Your task to perform on an android device: toggle location history Image 0: 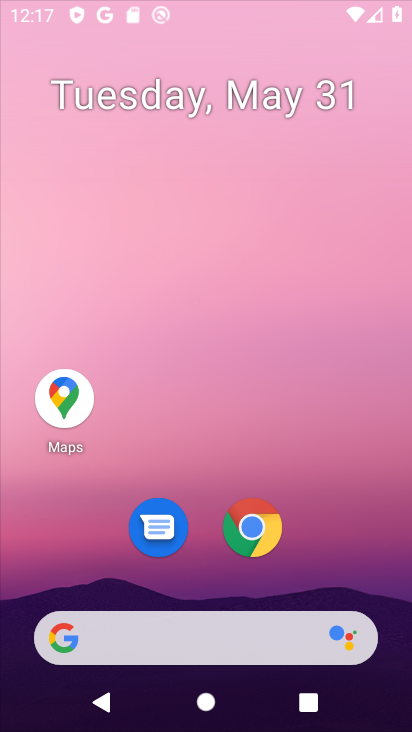
Step 0: click (89, 115)
Your task to perform on an android device: toggle location history Image 1: 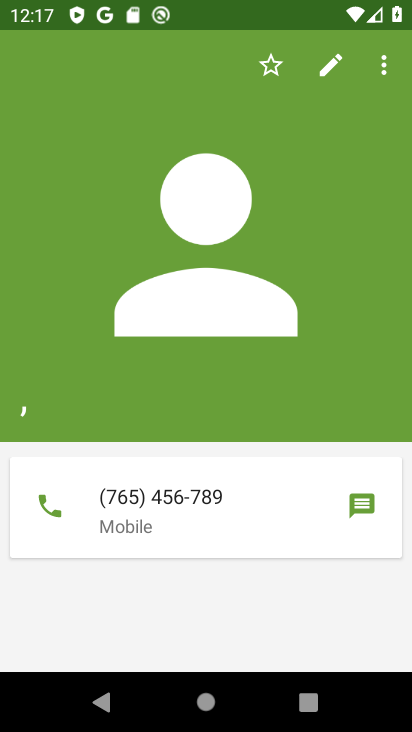
Step 1: press back button
Your task to perform on an android device: toggle location history Image 2: 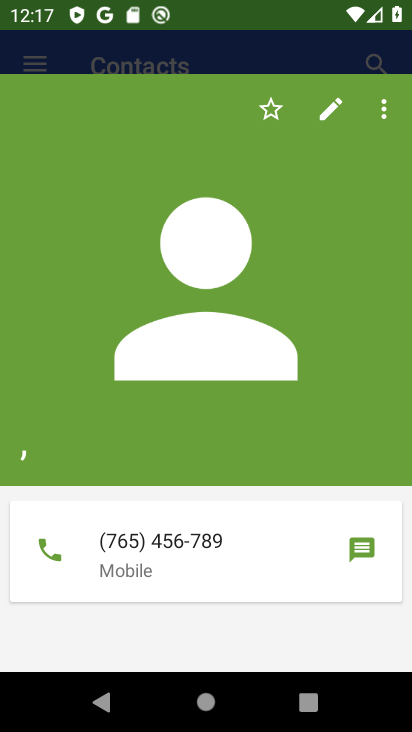
Step 2: press back button
Your task to perform on an android device: toggle location history Image 3: 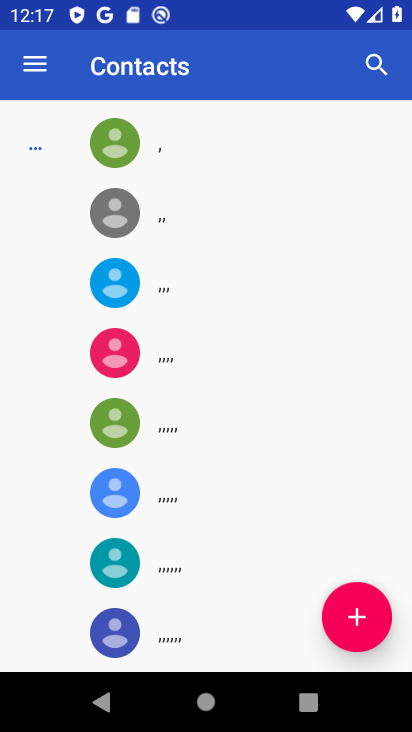
Step 3: press back button
Your task to perform on an android device: toggle location history Image 4: 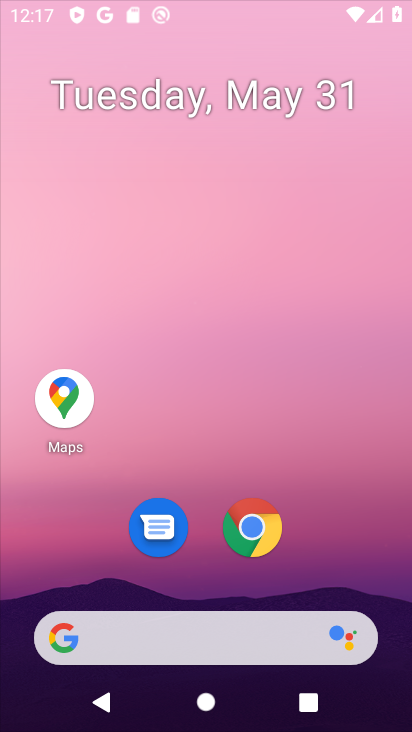
Step 4: press back button
Your task to perform on an android device: toggle location history Image 5: 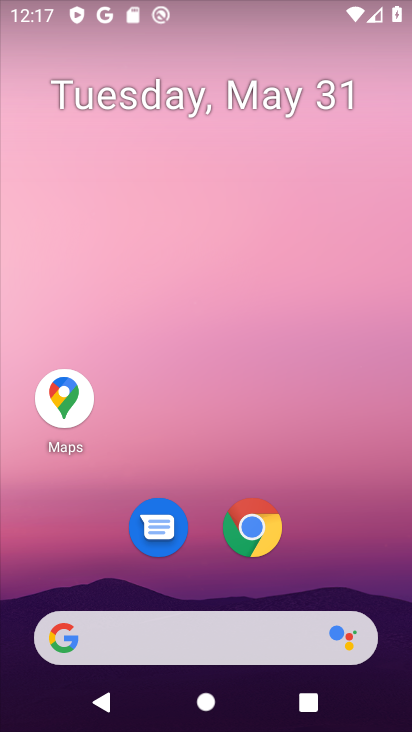
Step 5: drag from (243, 658) to (58, 138)
Your task to perform on an android device: toggle location history Image 6: 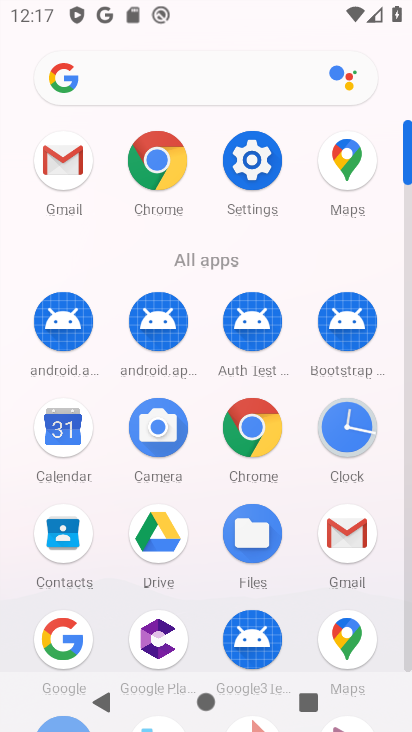
Step 6: drag from (227, 530) to (166, 194)
Your task to perform on an android device: toggle location history Image 7: 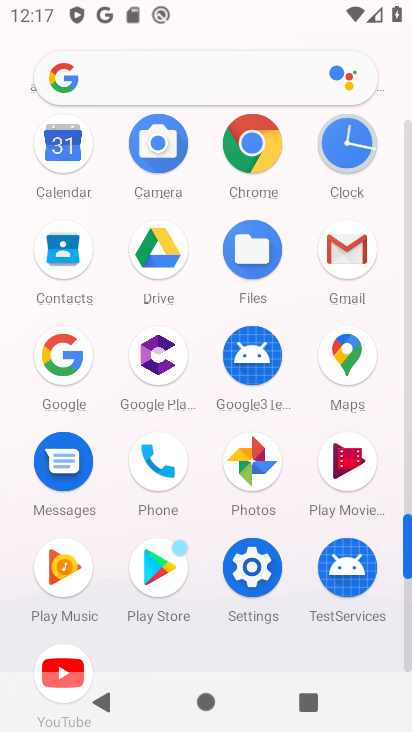
Step 7: drag from (187, 345) to (196, 590)
Your task to perform on an android device: toggle location history Image 8: 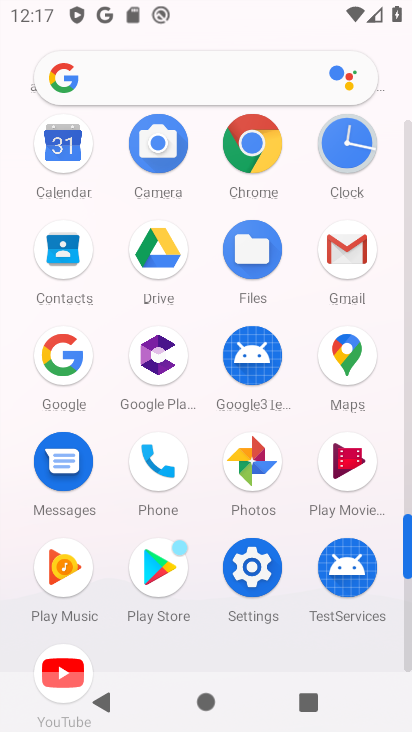
Step 8: drag from (200, 250) to (223, 573)
Your task to perform on an android device: toggle location history Image 9: 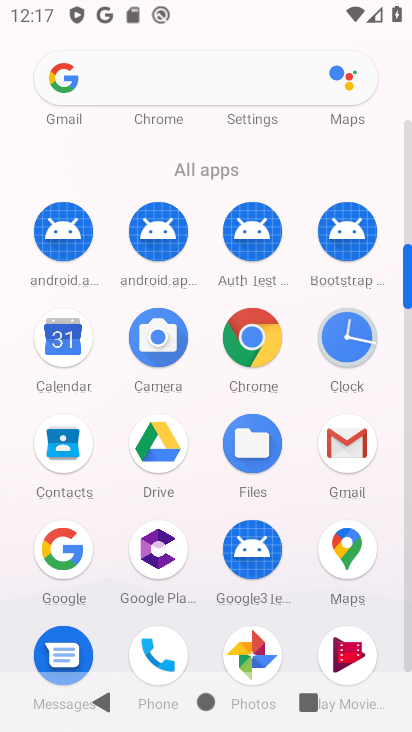
Step 9: drag from (194, 234) to (215, 601)
Your task to perform on an android device: toggle location history Image 10: 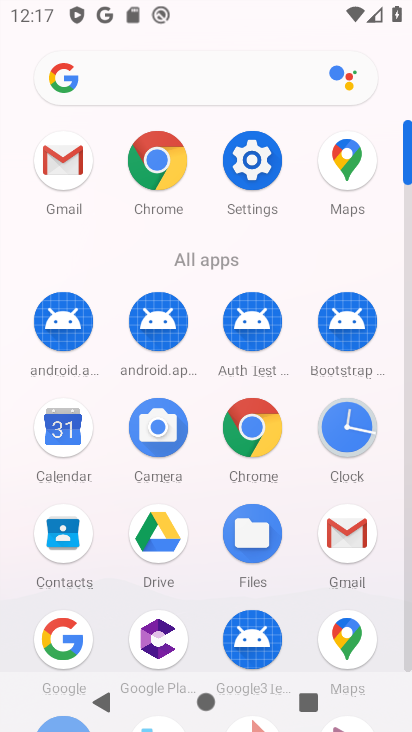
Step 10: click (226, 589)
Your task to perform on an android device: toggle location history Image 11: 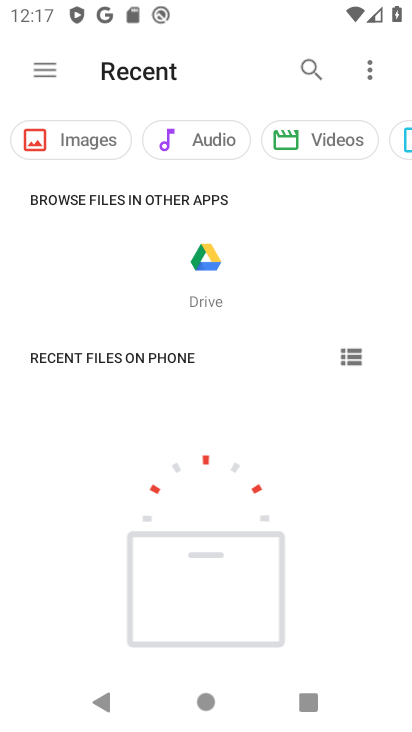
Step 11: press back button
Your task to perform on an android device: toggle location history Image 12: 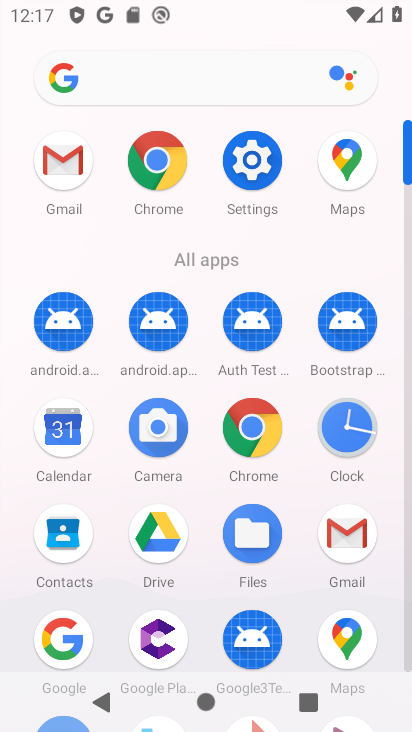
Step 12: drag from (187, 439) to (184, 201)
Your task to perform on an android device: toggle location history Image 13: 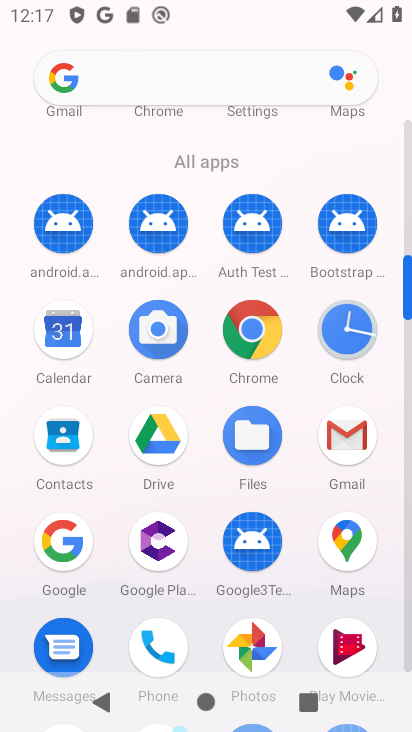
Step 13: drag from (208, 463) to (189, 237)
Your task to perform on an android device: toggle location history Image 14: 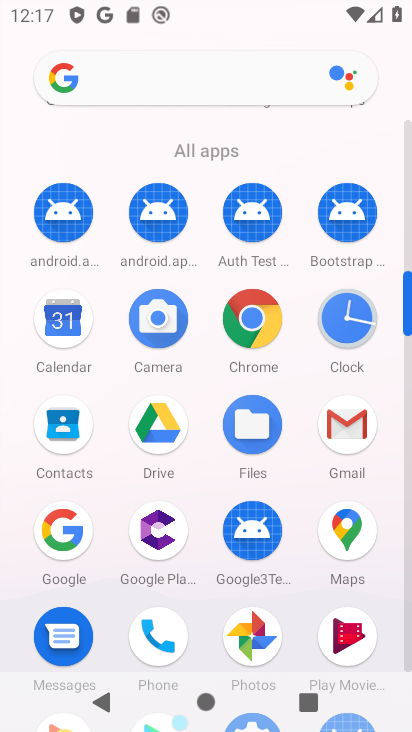
Step 14: drag from (203, 505) to (183, 238)
Your task to perform on an android device: toggle location history Image 15: 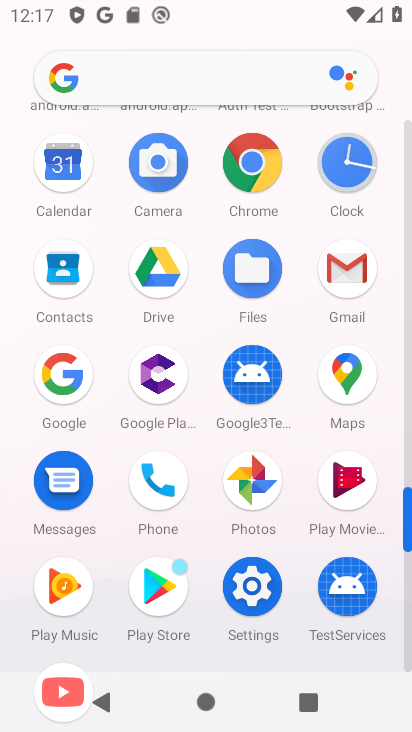
Step 15: drag from (213, 527) to (210, 263)
Your task to perform on an android device: toggle location history Image 16: 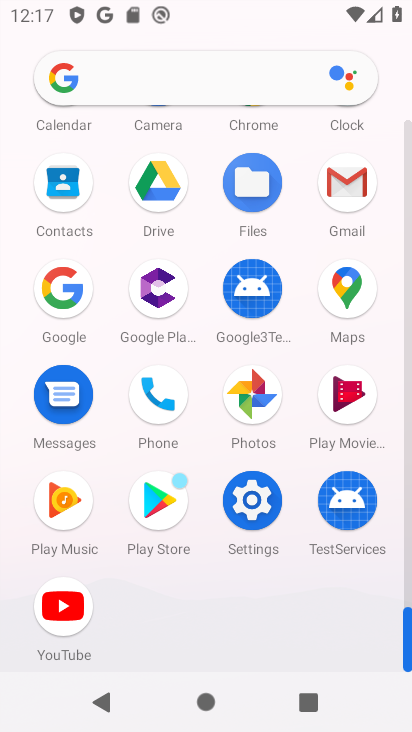
Step 16: click (249, 503)
Your task to perform on an android device: toggle location history Image 17: 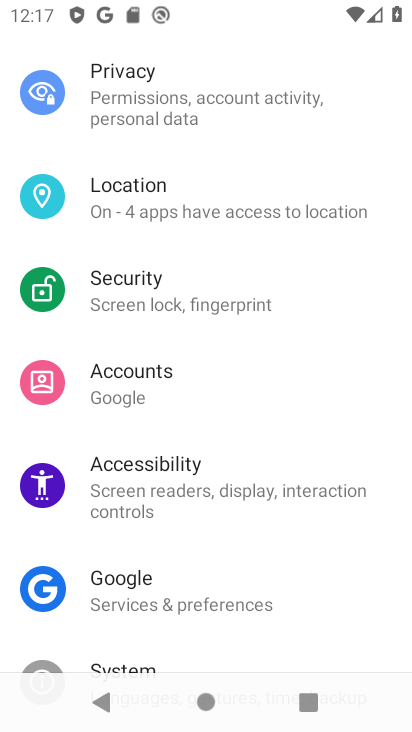
Step 17: click (144, 201)
Your task to perform on an android device: toggle location history Image 18: 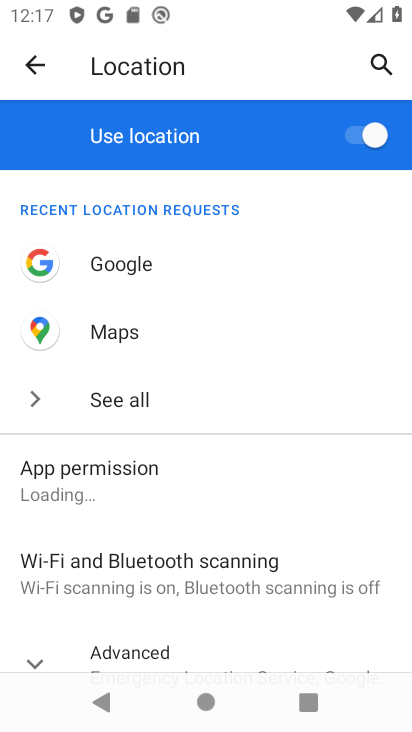
Step 18: drag from (194, 542) to (197, 156)
Your task to perform on an android device: toggle location history Image 19: 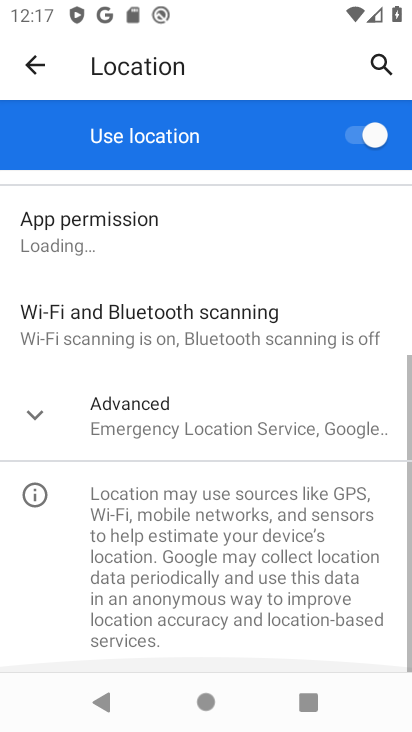
Step 19: drag from (256, 469) to (224, 157)
Your task to perform on an android device: toggle location history Image 20: 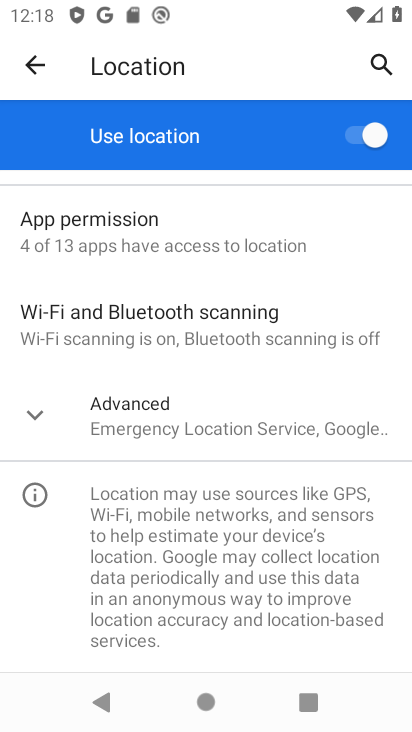
Step 20: click (162, 404)
Your task to perform on an android device: toggle location history Image 21: 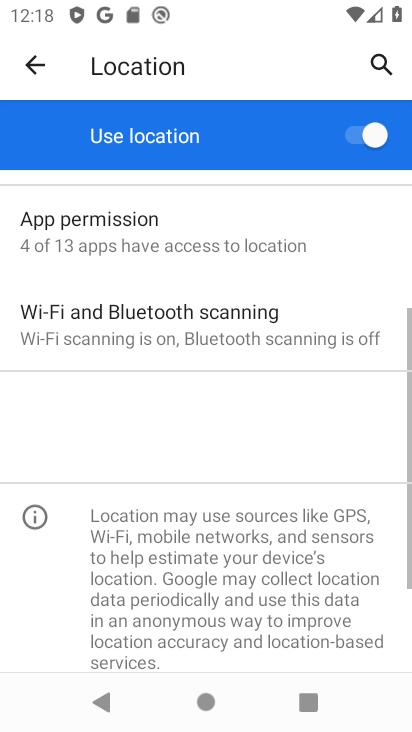
Step 21: click (161, 407)
Your task to perform on an android device: toggle location history Image 22: 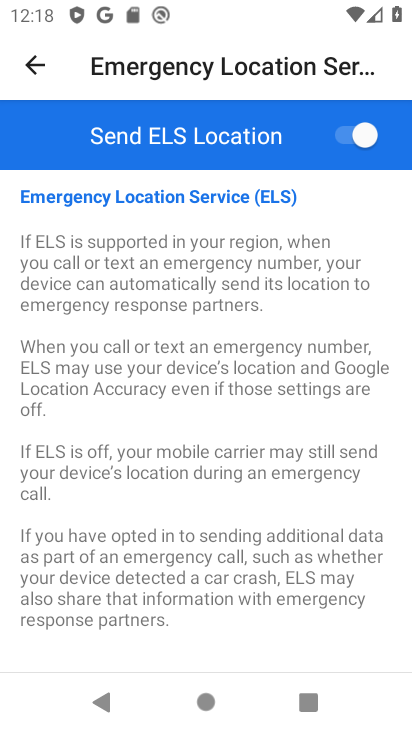
Step 22: click (46, 87)
Your task to perform on an android device: toggle location history Image 23: 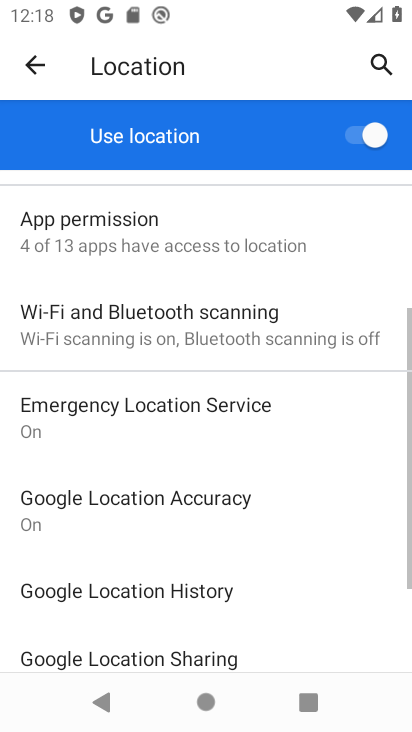
Step 23: click (183, 568)
Your task to perform on an android device: toggle location history Image 24: 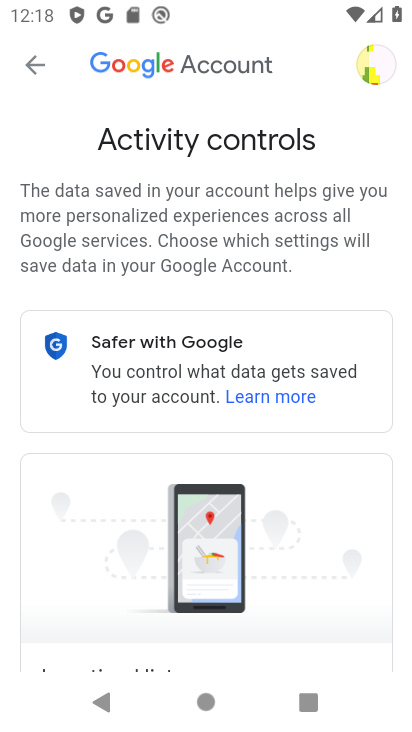
Step 24: drag from (238, 446) to (259, 206)
Your task to perform on an android device: toggle location history Image 25: 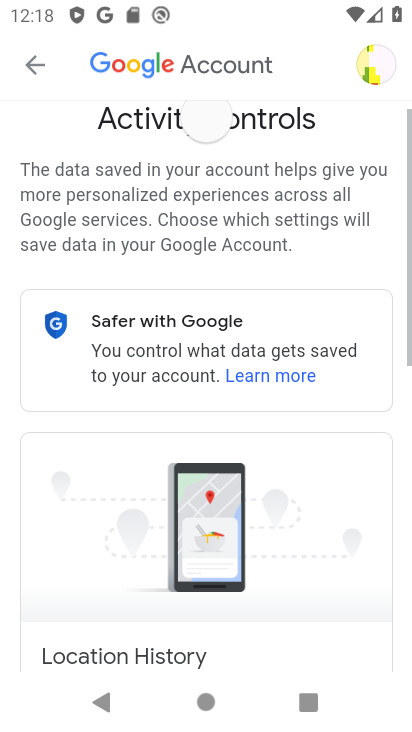
Step 25: drag from (300, 402) to (275, 99)
Your task to perform on an android device: toggle location history Image 26: 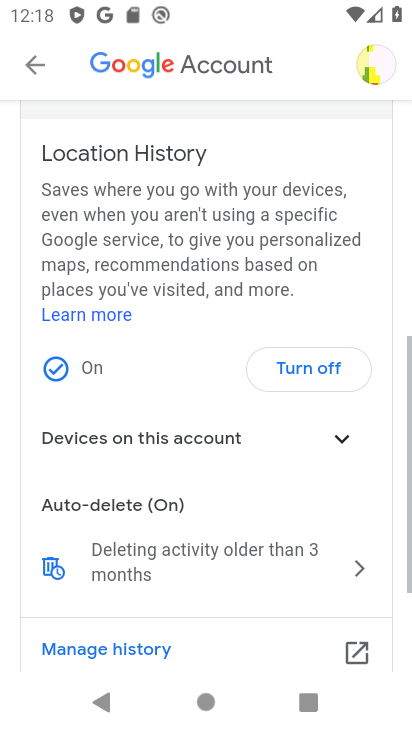
Step 26: drag from (277, 417) to (223, 134)
Your task to perform on an android device: toggle location history Image 27: 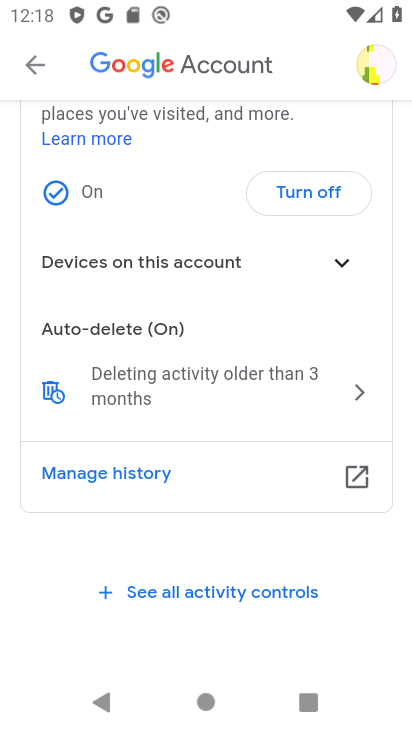
Step 27: click (310, 186)
Your task to perform on an android device: toggle location history Image 28: 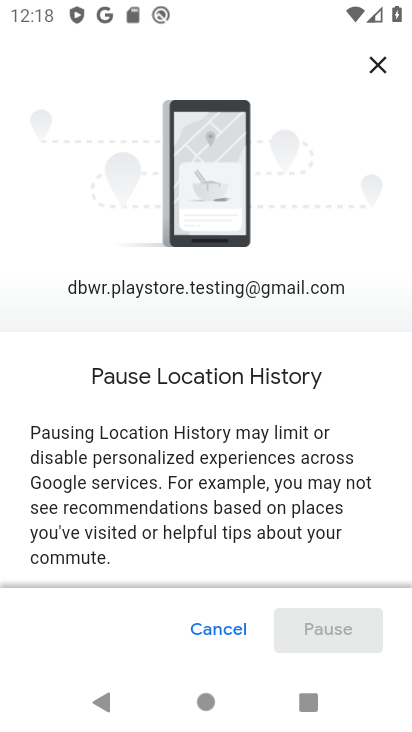
Step 28: task complete